Your task to perform on an android device: How much does a 3 bedroom apartment rent for in Atlanta? Image 0: 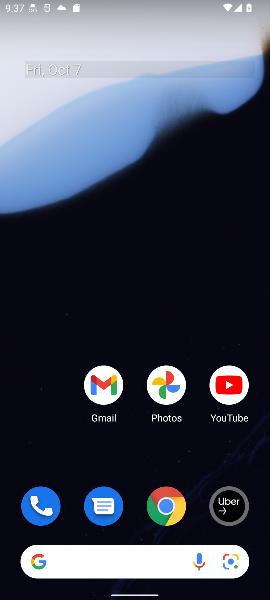
Step 0: click (166, 508)
Your task to perform on an android device: How much does a 3 bedroom apartment rent for in Atlanta? Image 1: 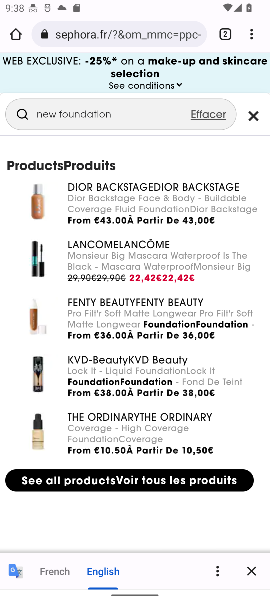
Step 1: press home button
Your task to perform on an android device: How much does a 3 bedroom apartment rent for in Atlanta? Image 2: 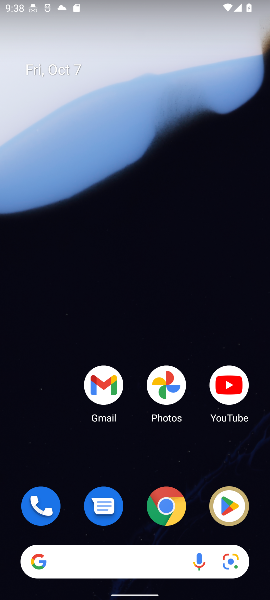
Step 2: click (163, 503)
Your task to perform on an android device: How much does a 3 bedroom apartment rent for in Atlanta? Image 3: 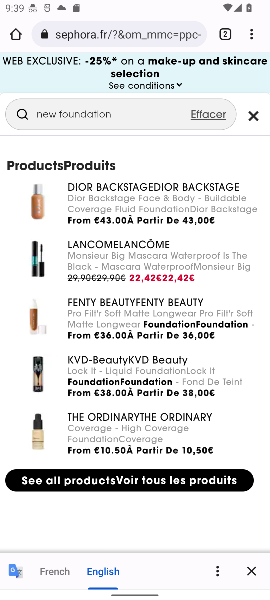
Step 3: click (162, 32)
Your task to perform on an android device: How much does a 3 bedroom apartment rent for in Atlanta? Image 4: 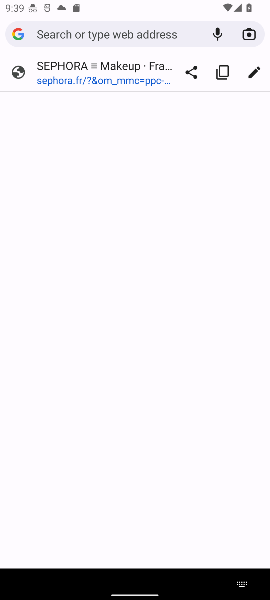
Step 4: type "3 bedroom apartment rent for in Atlanta"
Your task to perform on an android device: How much does a 3 bedroom apartment rent for in Atlanta? Image 5: 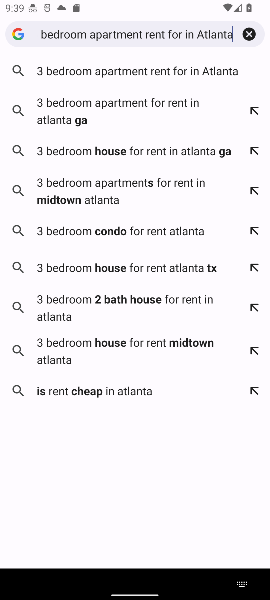
Step 5: click (123, 70)
Your task to perform on an android device: How much does a 3 bedroom apartment rent for in Atlanta? Image 6: 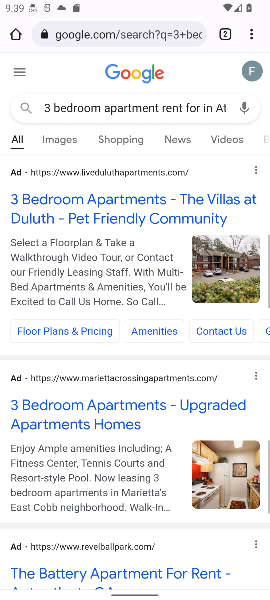
Step 6: drag from (114, 474) to (172, 177)
Your task to perform on an android device: How much does a 3 bedroom apartment rent for in Atlanta? Image 7: 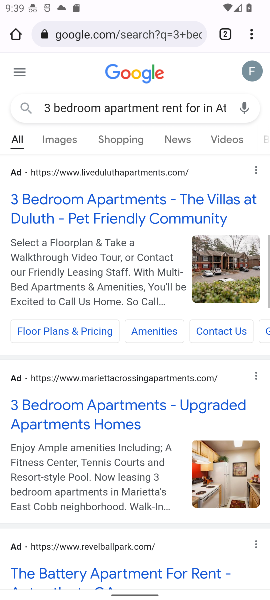
Step 7: drag from (142, 497) to (183, 105)
Your task to perform on an android device: How much does a 3 bedroom apartment rent for in Atlanta? Image 8: 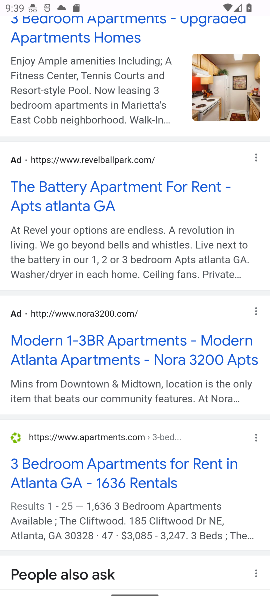
Step 8: click (128, 466)
Your task to perform on an android device: How much does a 3 bedroom apartment rent for in Atlanta? Image 9: 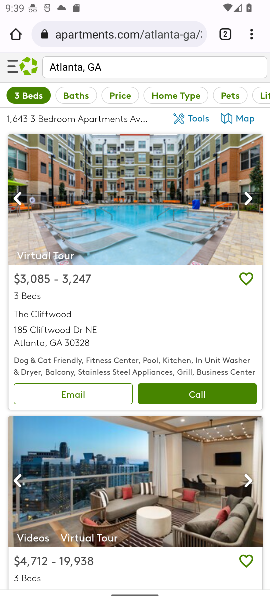
Step 9: task complete